Your task to perform on an android device: Open internet settings Image 0: 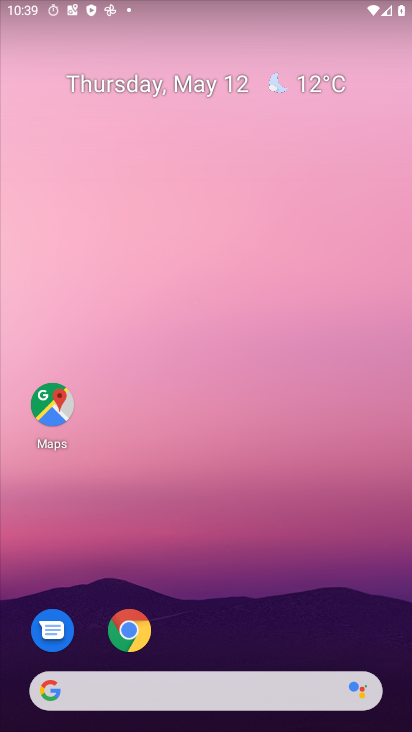
Step 0: press home button
Your task to perform on an android device: Open internet settings Image 1: 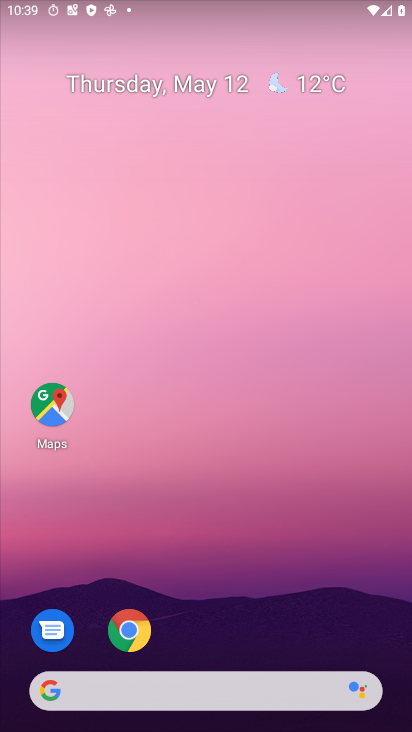
Step 1: drag from (217, 682) to (272, 82)
Your task to perform on an android device: Open internet settings Image 2: 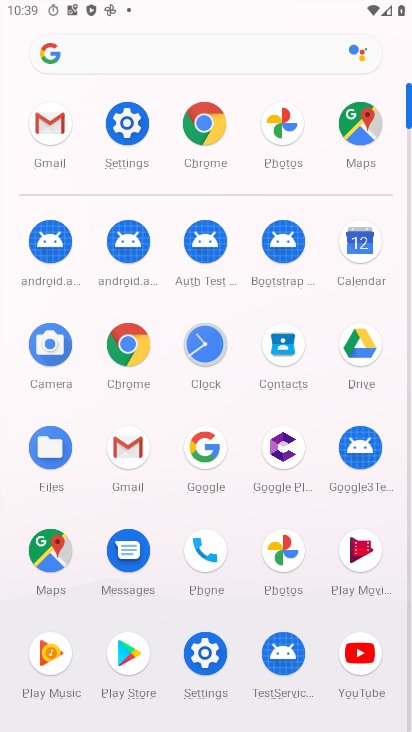
Step 2: click (106, 128)
Your task to perform on an android device: Open internet settings Image 3: 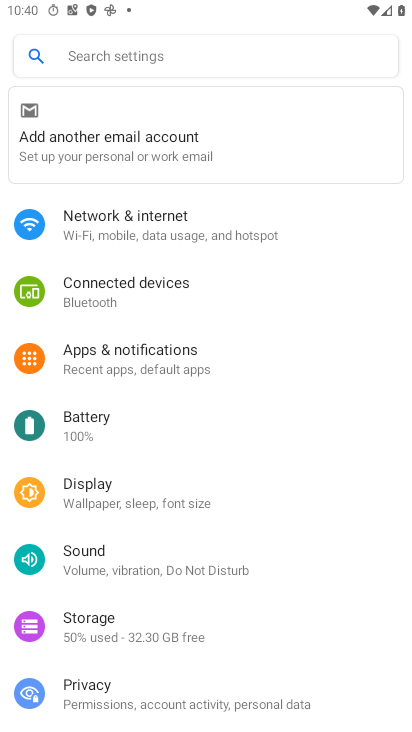
Step 3: click (115, 231)
Your task to perform on an android device: Open internet settings Image 4: 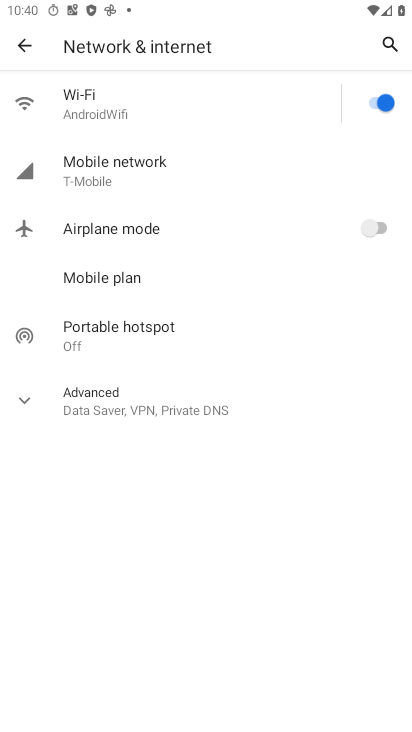
Step 4: task complete